Your task to perform on an android device: turn off javascript in the chrome app Image 0: 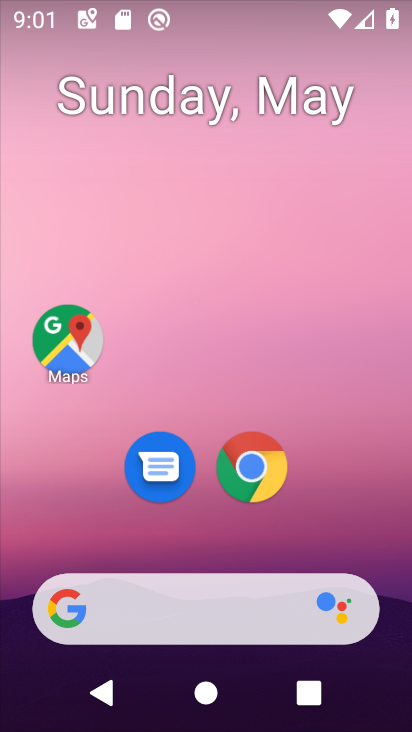
Step 0: drag from (341, 505) to (366, 239)
Your task to perform on an android device: turn off javascript in the chrome app Image 1: 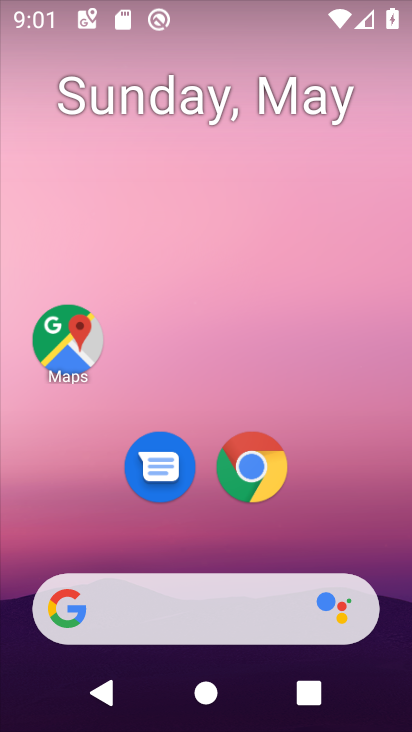
Step 1: drag from (347, 505) to (272, 68)
Your task to perform on an android device: turn off javascript in the chrome app Image 2: 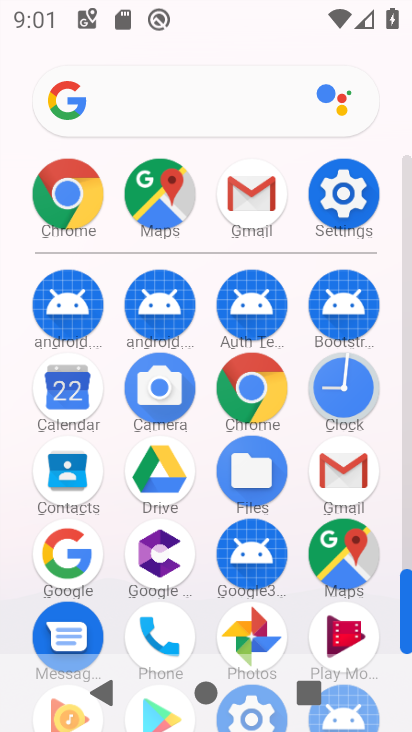
Step 2: click (354, 199)
Your task to perform on an android device: turn off javascript in the chrome app Image 3: 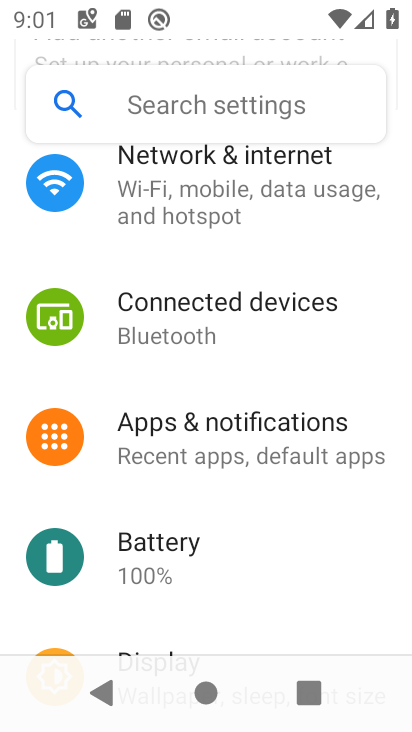
Step 3: press home button
Your task to perform on an android device: turn off javascript in the chrome app Image 4: 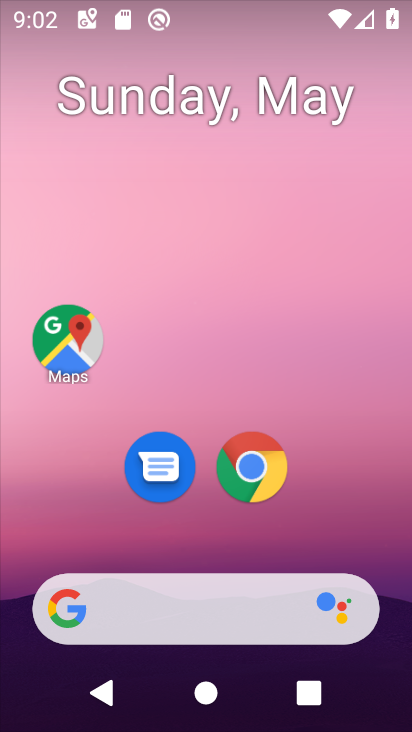
Step 4: drag from (327, 468) to (338, 95)
Your task to perform on an android device: turn off javascript in the chrome app Image 5: 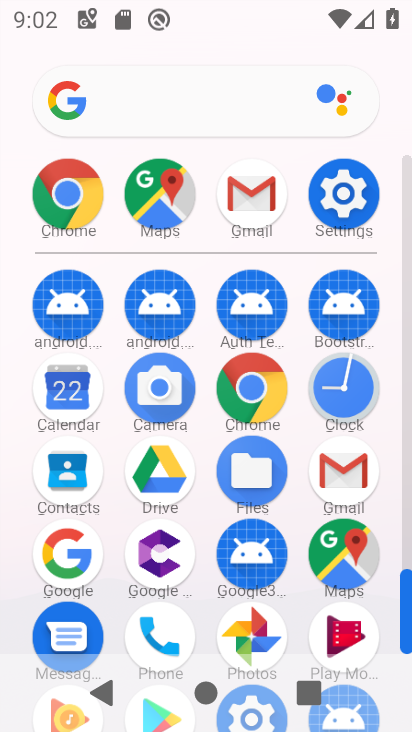
Step 5: click (67, 201)
Your task to perform on an android device: turn off javascript in the chrome app Image 6: 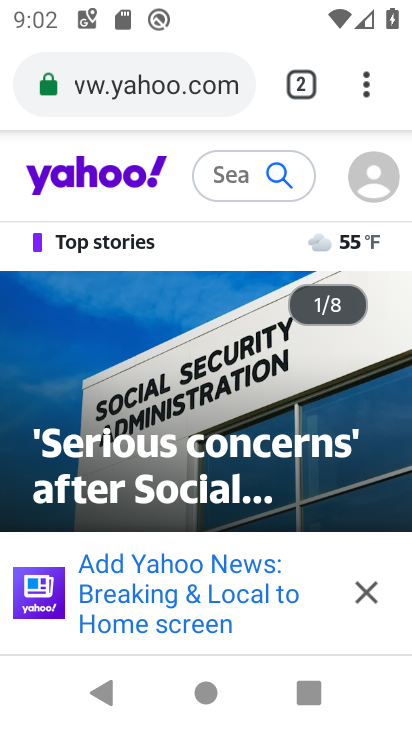
Step 6: drag from (368, 92) to (198, 517)
Your task to perform on an android device: turn off javascript in the chrome app Image 7: 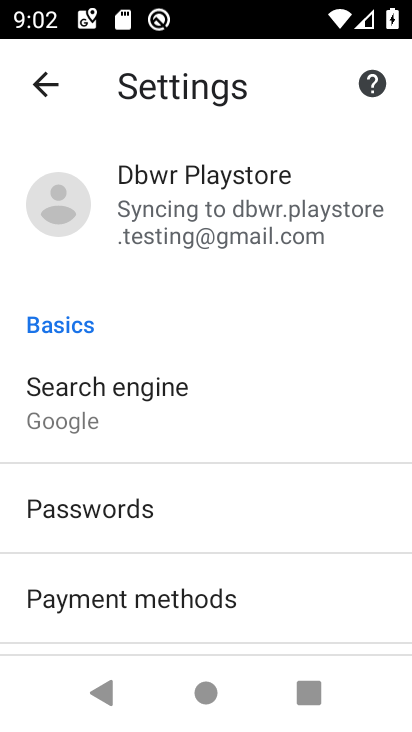
Step 7: drag from (267, 584) to (247, 110)
Your task to perform on an android device: turn off javascript in the chrome app Image 8: 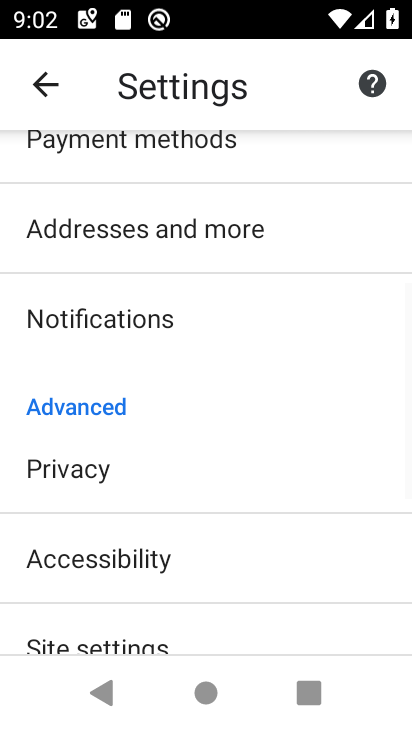
Step 8: drag from (319, 558) to (320, 193)
Your task to perform on an android device: turn off javascript in the chrome app Image 9: 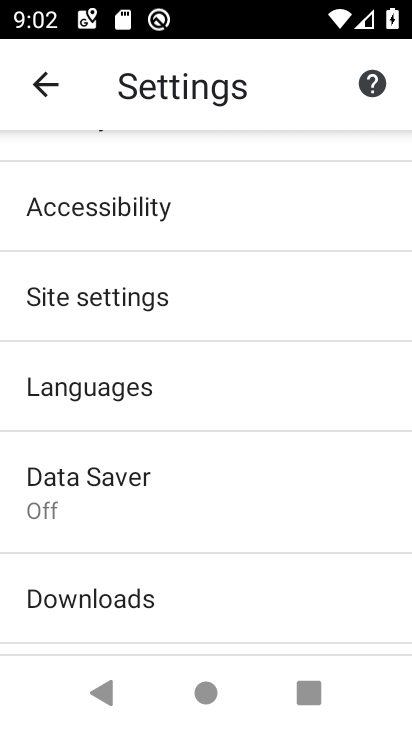
Step 9: drag from (271, 629) to (294, 252)
Your task to perform on an android device: turn off javascript in the chrome app Image 10: 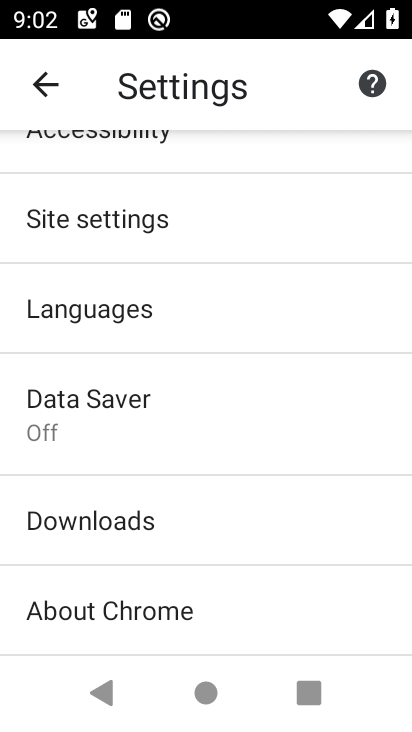
Step 10: click (167, 233)
Your task to perform on an android device: turn off javascript in the chrome app Image 11: 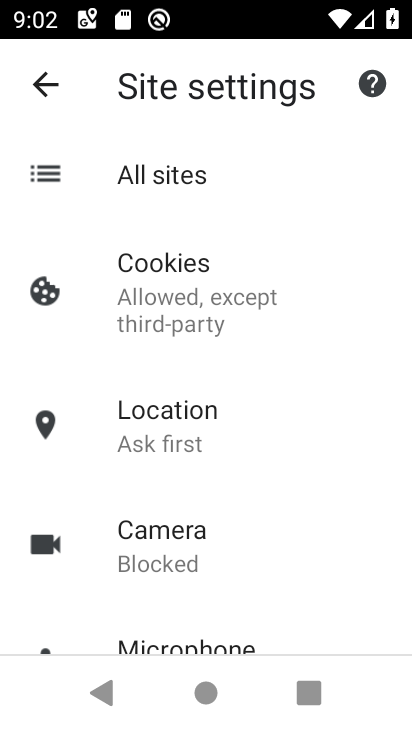
Step 11: drag from (236, 522) to (250, 181)
Your task to perform on an android device: turn off javascript in the chrome app Image 12: 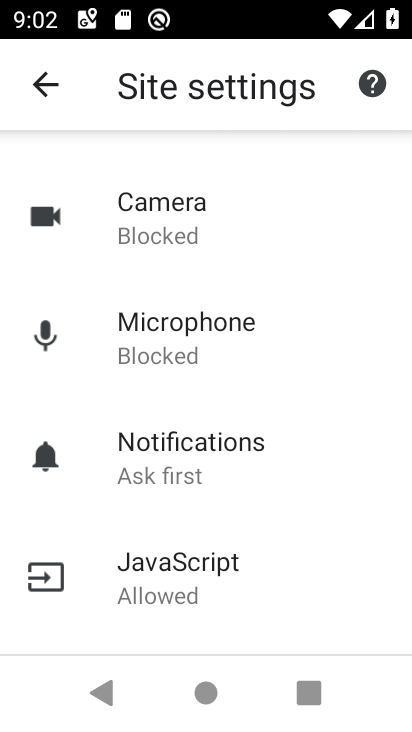
Step 12: click (252, 563)
Your task to perform on an android device: turn off javascript in the chrome app Image 13: 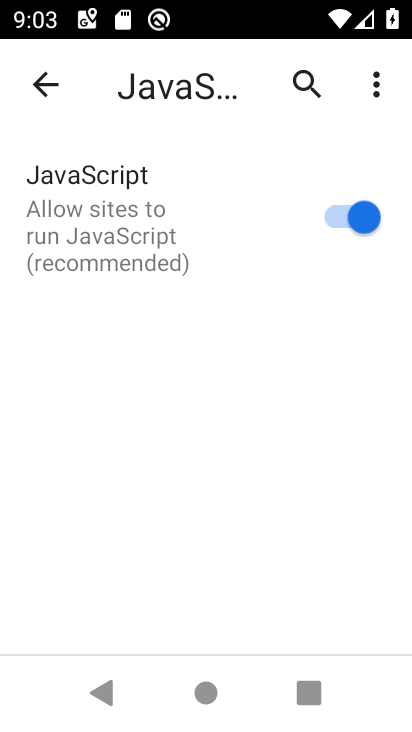
Step 13: click (333, 218)
Your task to perform on an android device: turn off javascript in the chrome app Image 14: 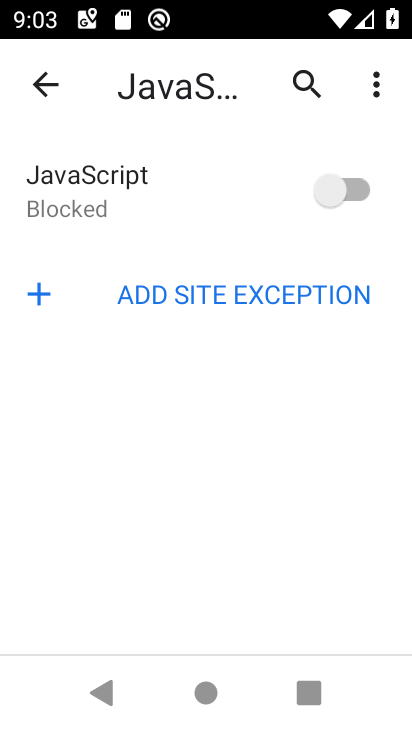
Step 14: task complete